Your task to perform on an android device: Search for hotels in NYC Image 0: 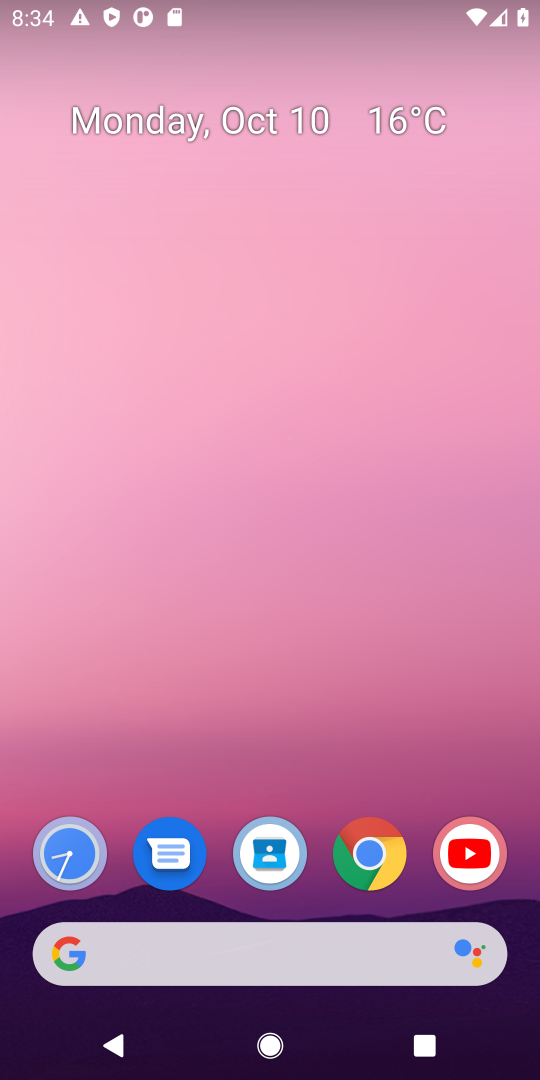
Step 0: drag from (324, 871) to (303, 241)
Your task to perform on an android device: Search for hotels in NYC Image 1: 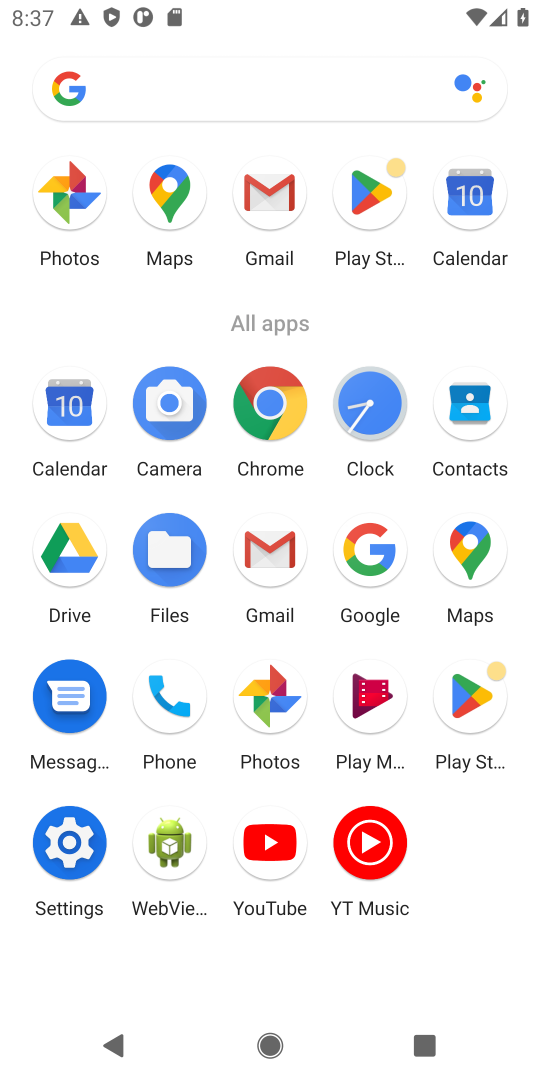
Step 1: click (271, 413)
Your task to perform on an android device: Search for hotels in NYC Image 2: 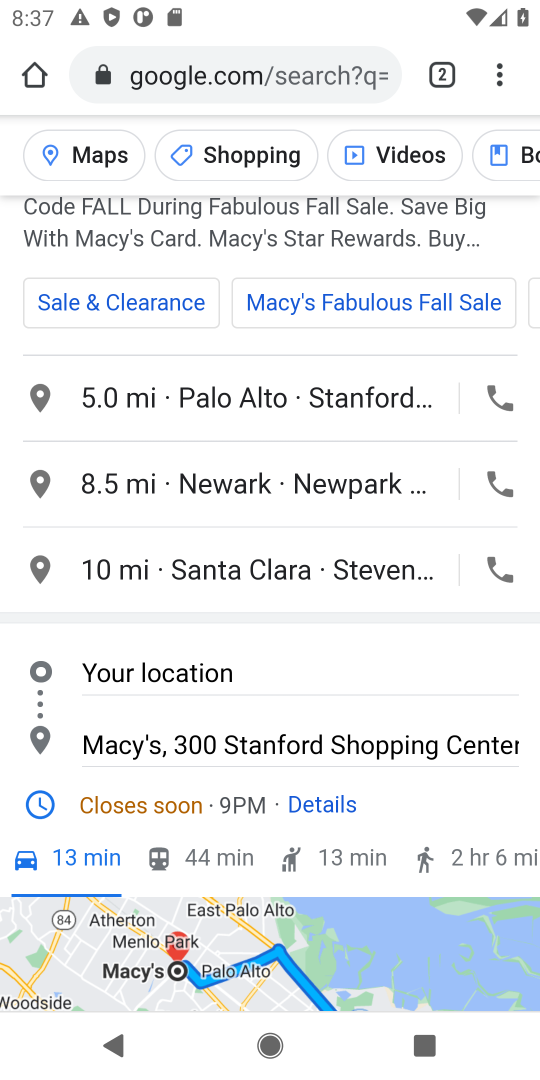
Step 2: drag from (286, 313) to (297, 854)
Your task to perform on an android device: Search for hotels in NYC Image 3: 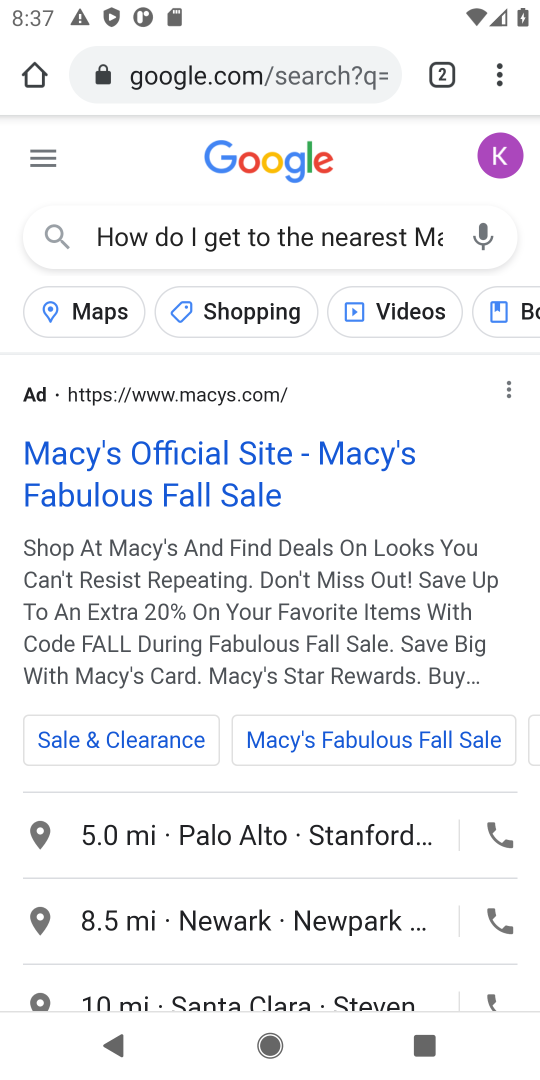
Step 3: click (300, 236)
Your task to perform on an android device: Search for hotels in NYC Image 4: 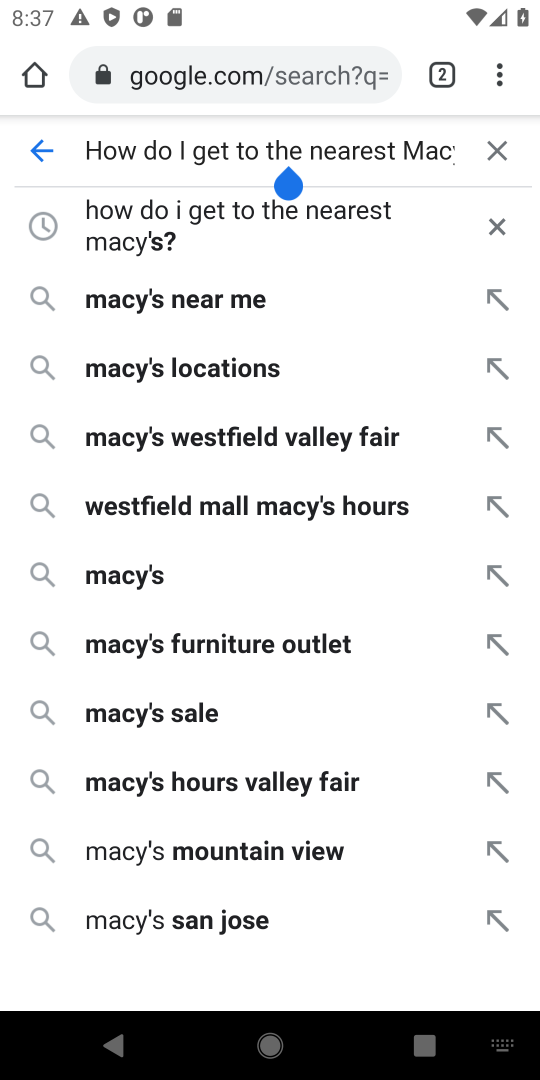
Step 4: click (500, 143)
Your task to perform on an android device: Search for hotels in NYC Image 5: 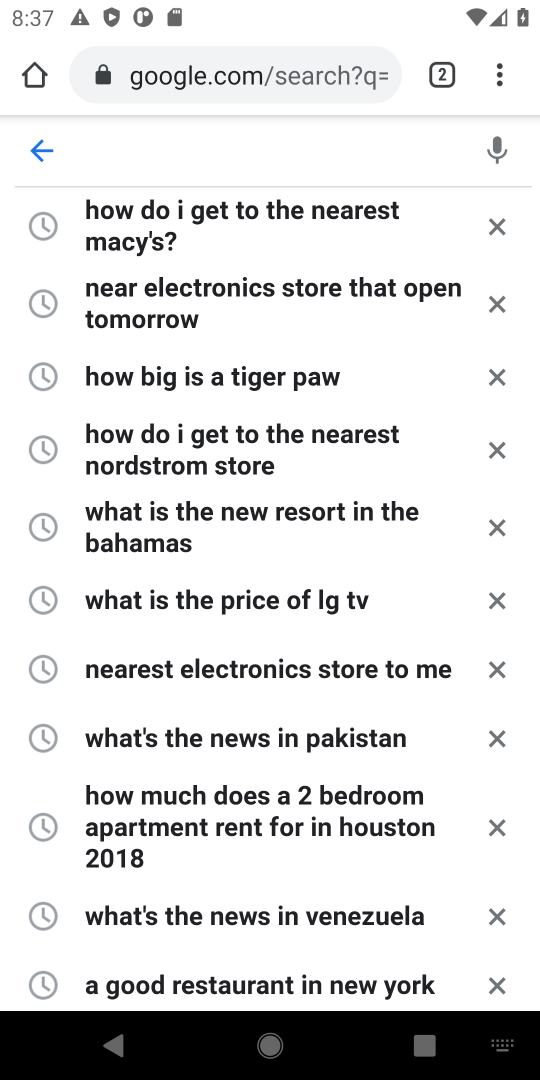
Step 5: type "hotels in NYC"
Your task to perform on an android device: Search for hotels in NYC Image 6: 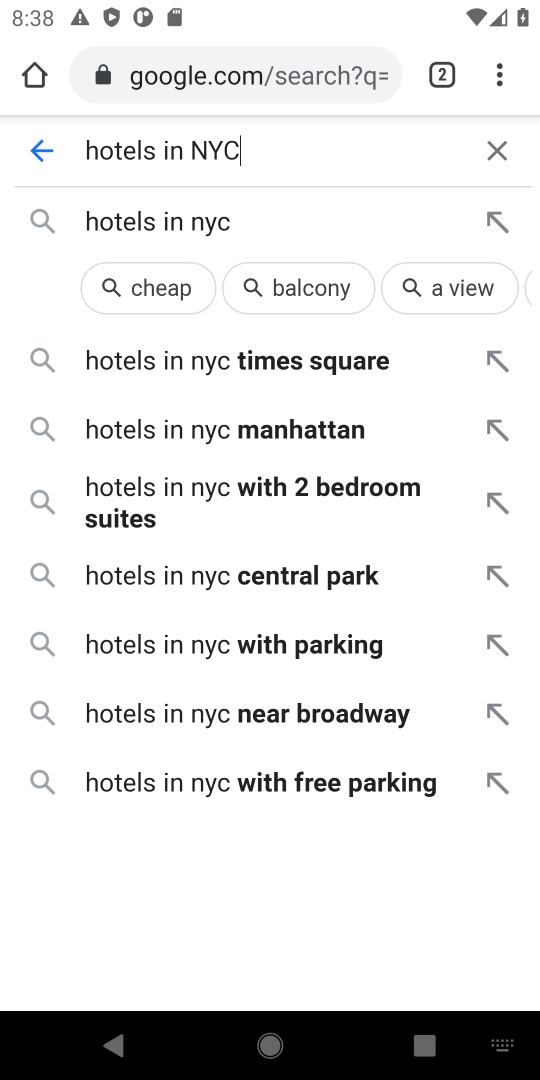
Step 6: click (157, 218)
Your task to perform on an android device: Search for hotels in NYC Image 7: 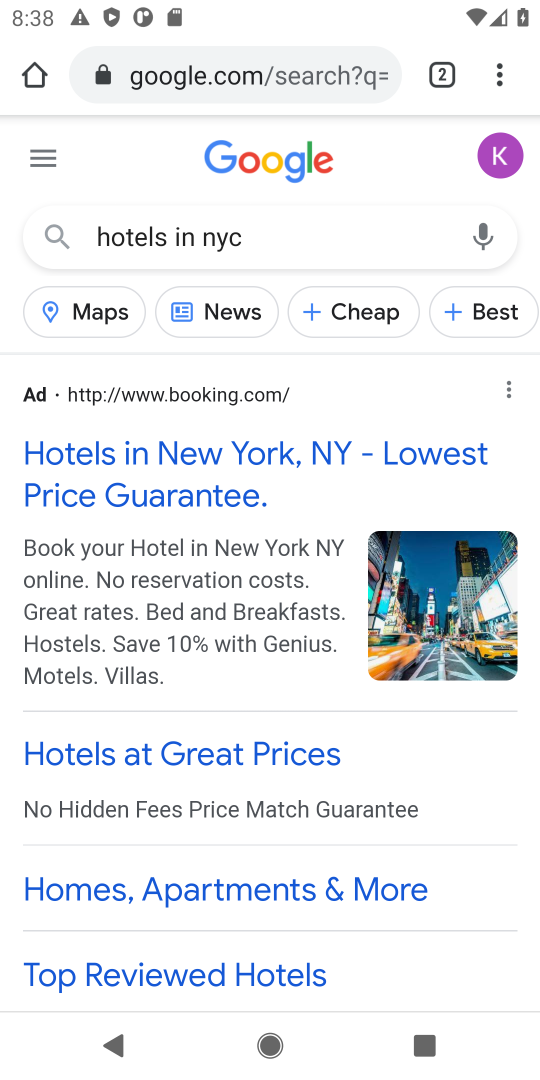
Step 7: task complete